Your task to perform on an android device: remove spam from my inbox in the gmail app Image 0: 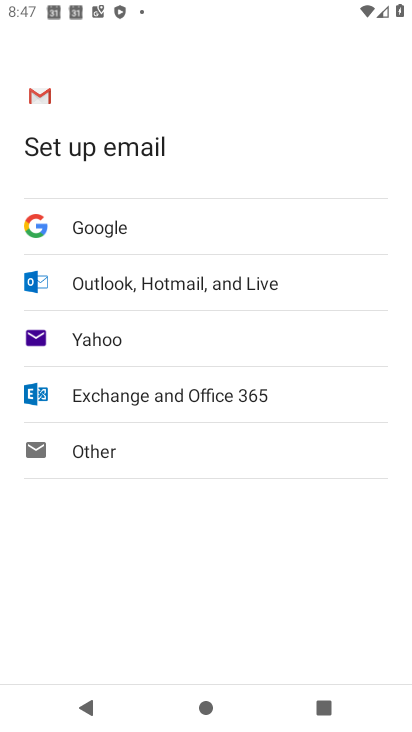
Step 0: press home button
Your task to perform on an android device: remove spam from my inbox in the gmail app Image 1: 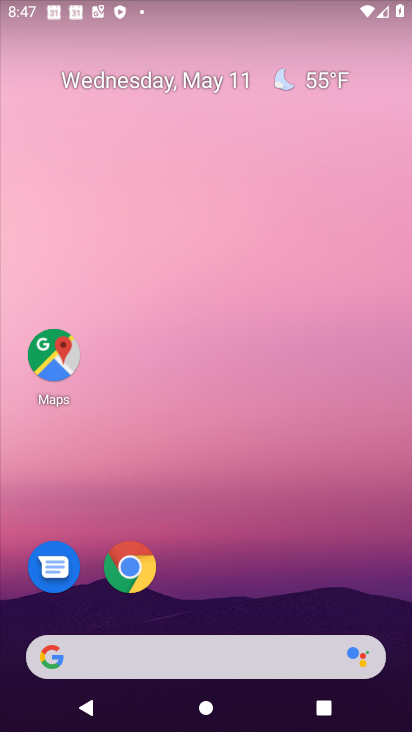
Step 1: drag from (218, 586) to (249, 18)
Your task to perform on an android device: remove spam from my inbox in the gmail app Image 2: 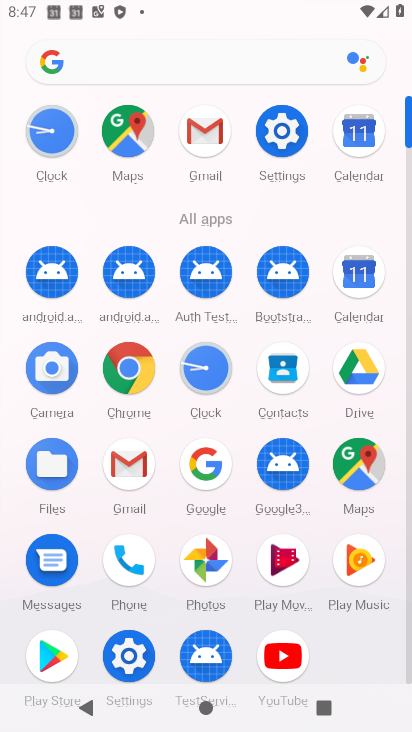
Step 2: click (136, 459)
Your task to perform on an android device: remove spam from my inbox in the gmail app Image 3: 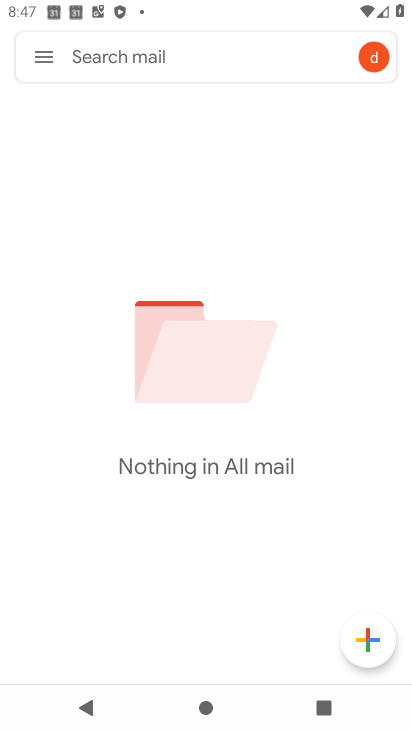
Step 3: click (39, 57)
Your task to perform on an android device: remove spam from my inbox in the gmail app Image 4: 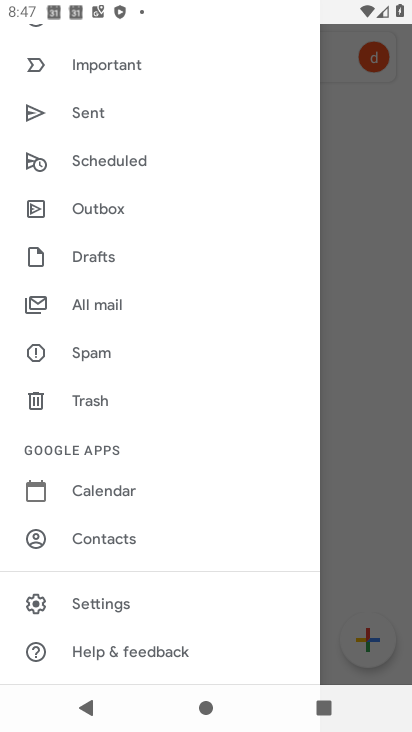
Step 4: click (109, 359)
Your task to perform on an android device: remove spam from my inbox in the gmail app Image 5: 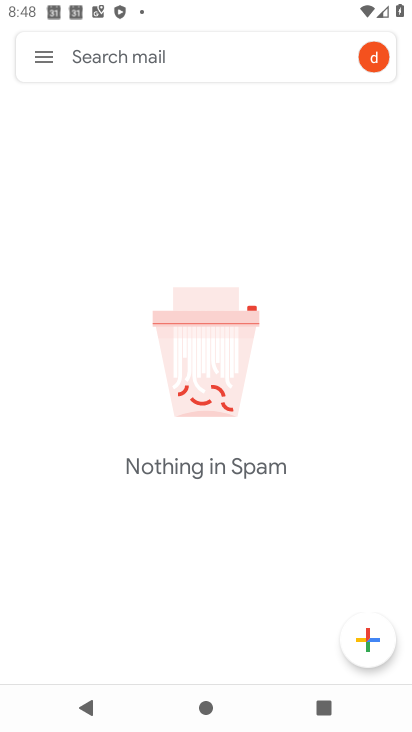
Step 5: task complete